Your task to perform on an android device: Go to display settings Image 0: 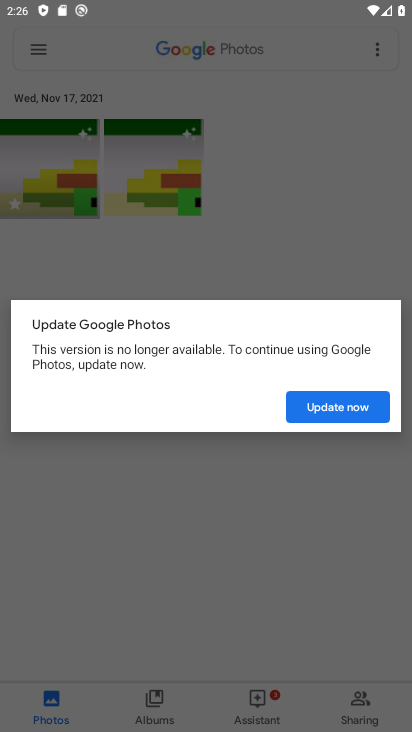
Step 0: press home button
Your task to perform on an android device: Go to display settings Image 1: 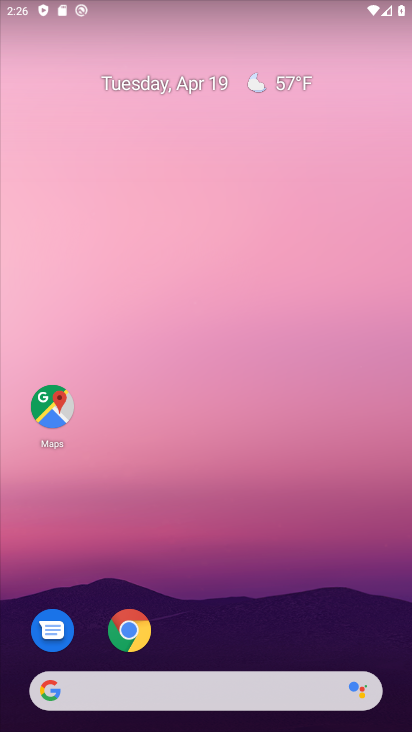
Step 1: drag from (215, 599) to (189, 201)
Your task to perform on an android device: Go to display settings Image 2: 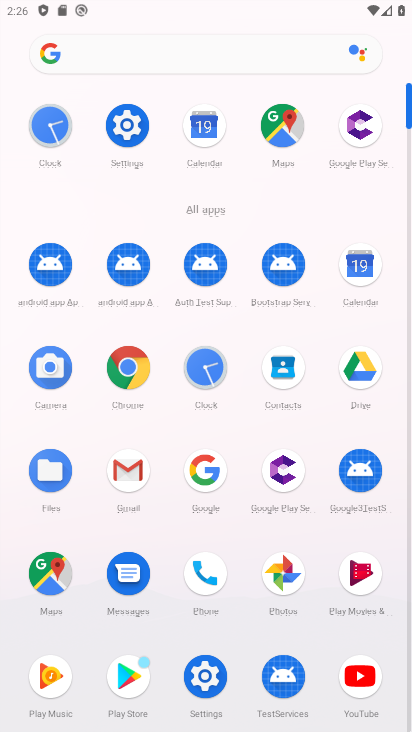
Step 2: click (131, 141)
Your task to perform on an android device: Go to display settings Image 3: 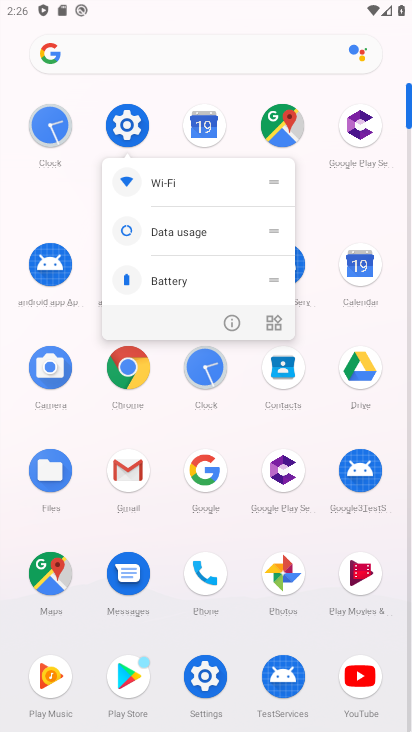
Step 3: click (129, 137)
Your task to perform on an android device: Go to display settings Image 4: 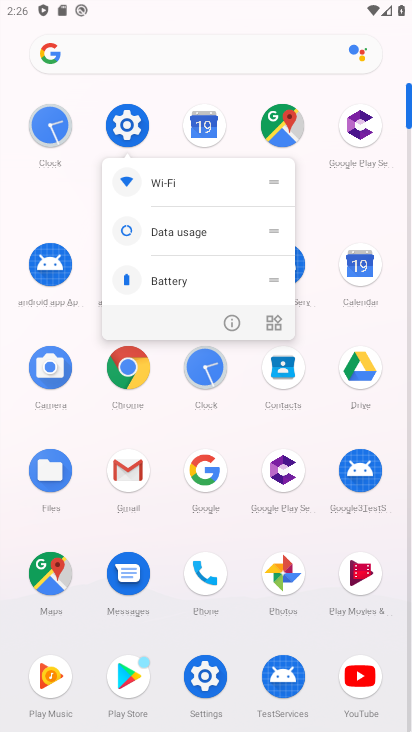
Step 4: click (124, 131)
Your task to perform on an android device: Go to display settings Image 5: 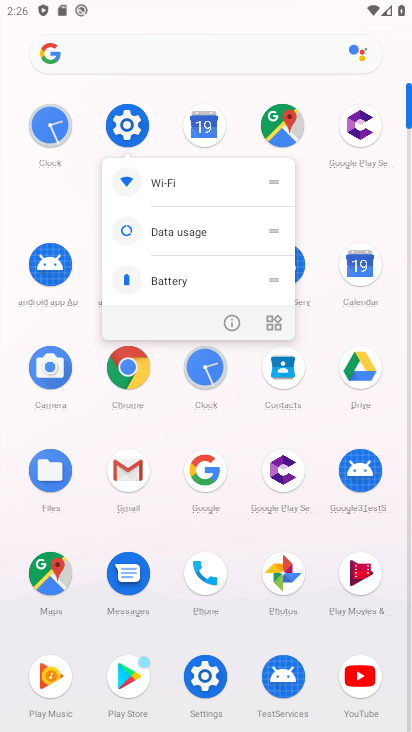
Step 5: click (129, 123)
Your task to perform on an android device: Go to display settings Image 6: 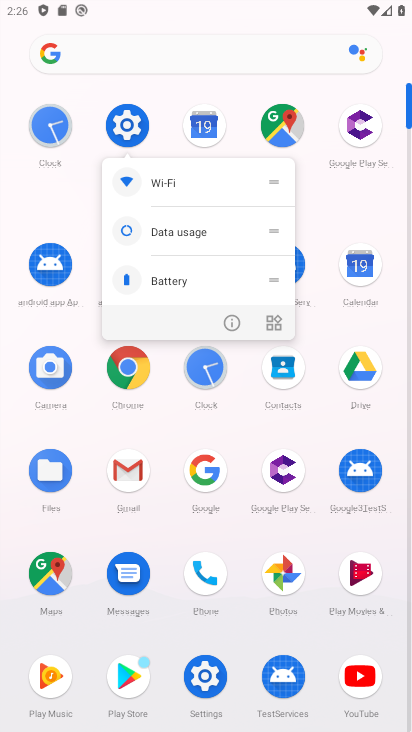
Step 6: click (119, 137)
Your task to perform on an android device: Go to display settings Image 7: 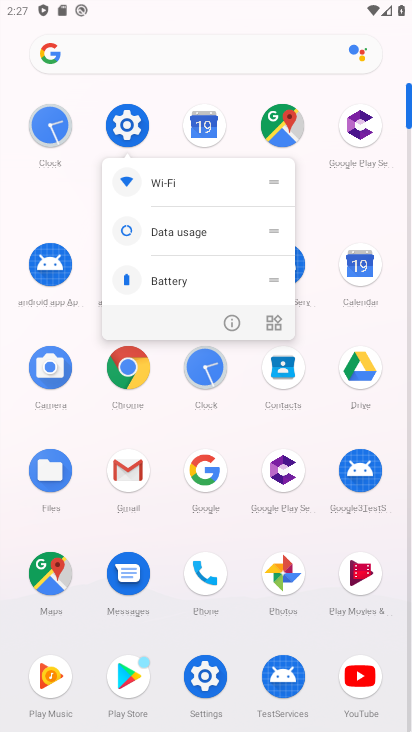
Step 7: click (128, 129)
Your task to perform on an android device: Go to display settings Image 8: 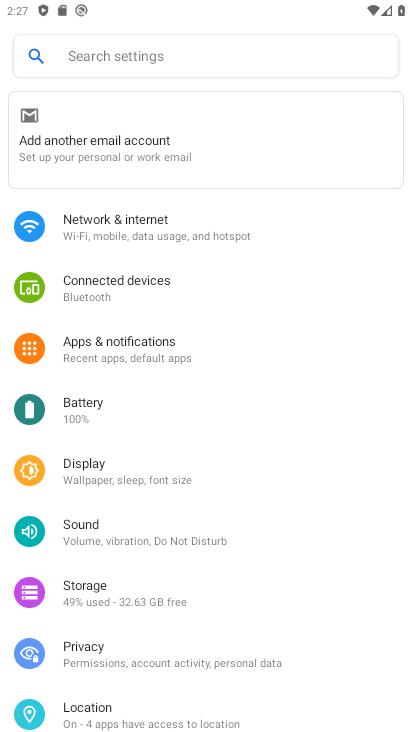
Step 8: click (120, 467)
Your task to perform on an android device: Go to display settings Image 9: 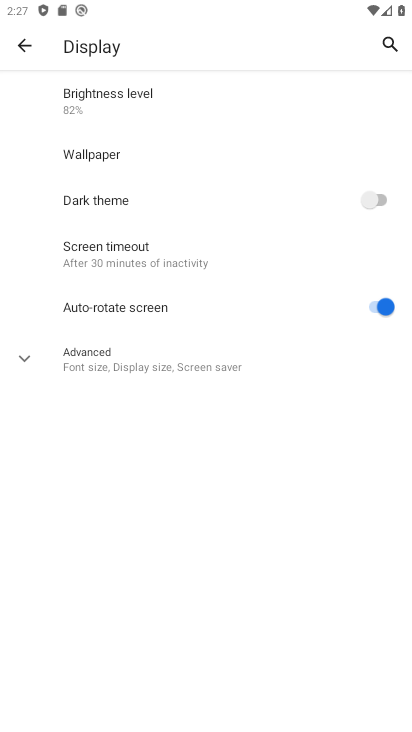
Step 9: task complete